Your task to perform on an android device: open app "TextNow: Call + Text Unlimited" (install if not already installed), go to login, and select forgot password Image 0: 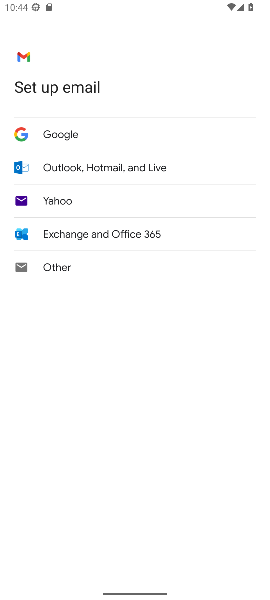
Step 0: press home button
Your task to perform on an android device: open app "TextNow: Call + Text Unlimited" (install if not already installed), go to login, and select forgot password Image 1: 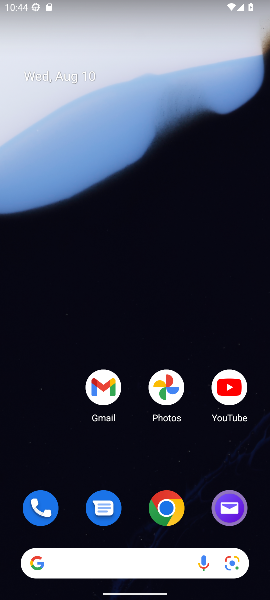
Step 1: drag from (150, 563) to (149, 223)
Your task to perform on an android device: open app "TextNow: Call + Text Unlimited" (install if not already installed), go to login, and select forgot password Image 2: 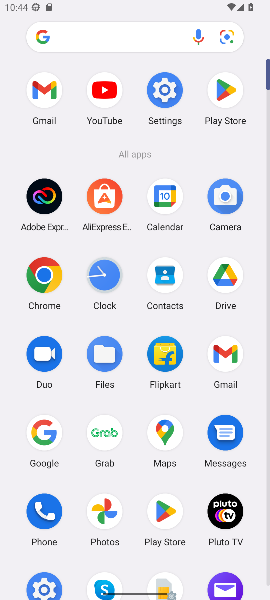
Step 2: click (225, 85)
Your task to perform on an android device: open app "TextNow: Call + Text Unlimited" (install if not already installed), go to login, and select forgot password Image 3: 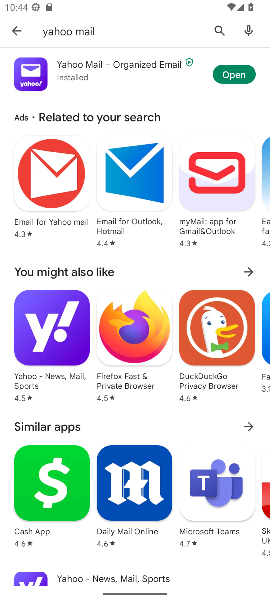
Step 3: click (216, 27)
Your task to perform on an android device: open app "TextNow: Call + Text Unlimited" (install if not already installed), go to login, and select forgot password Image 4: 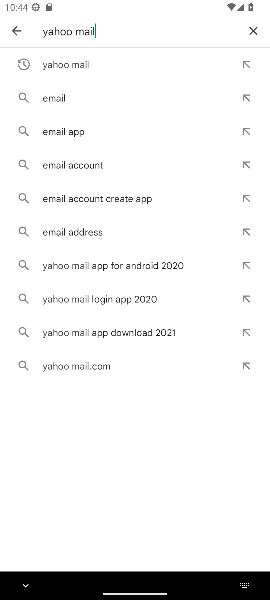
Step 4: click (253, 25)
Your task to perform on an android device: open app "TextNow: Call + Text Unlimited" (install if not already installed), go to login, and select forgot password Image 5: 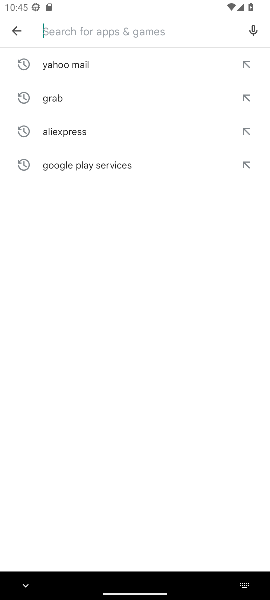
Step 5: type "TextNow: Call + Text Unlimited"
Your task to perform on an android device: open app "TextNow: Call + Text Unlimited" (install if not already installed), go to login, and select forgot password Image 6: 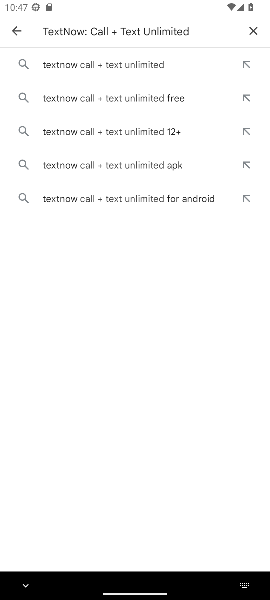
Step 6: click (76, 68)
Your task to perform on an android device: open app "TextNow: Call + Text Unlimited" (install if not already installed), go to login, and select forgot password Image 7: 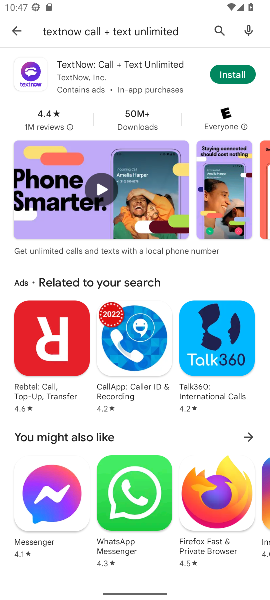
Step 7: click (231, 76)
Your task to perform on an android device: open app "TextNow: Call + Text Unlimited" (install if not already installed), go to login, and select forgot password Image 8: 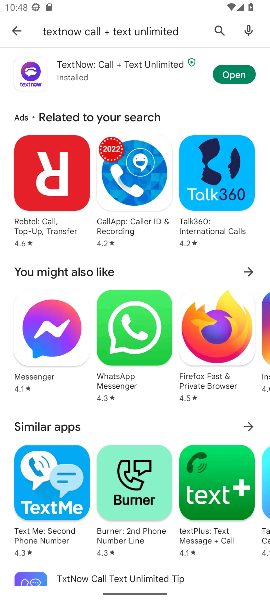
Step 8: click (225, 75)
Your task to perform on an android device: open app "TextNow: Call + Text Unlimited" (install if not already installed), go to login, and select forgot password Image 9: 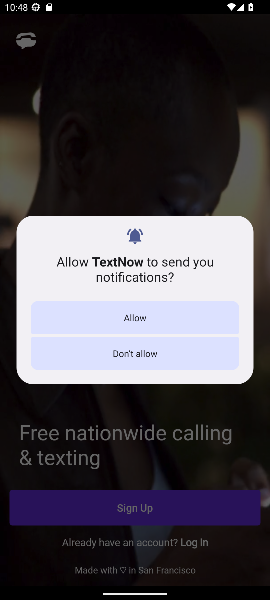
Step 9: task complete